Your task to perform on an android device: Show the shopping cart on costco.com. Search for "razer nari" on costco.com, select the first entry, and add it to the cart. Image 0: 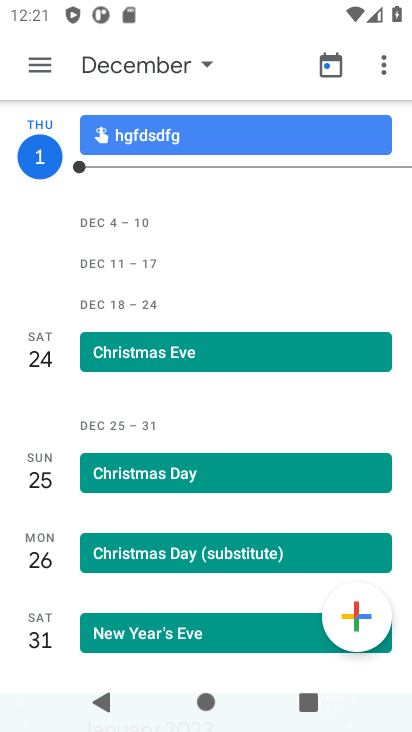
Step 0: press home button
Your task to perform on an android device: Show the shopping cart on costco.com. Search for "razer nari" on costco.com, select the first entry, and add it to the cart. Image 1: 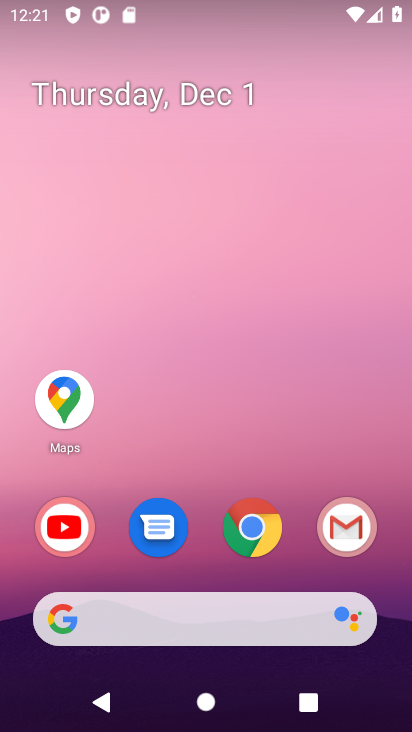
Step 1: click (260, 535)
Your task to perform on an android device: Show the shopping cart on costco.com. Search for "razer nari" on costco.com, select the first entry, and add it to the cart. Image 2: 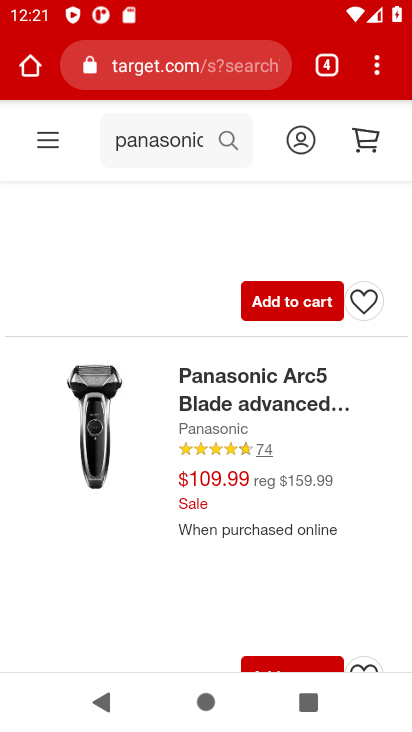
Step 2: click (152, 74)
Your task to perform on an android device: Show the shopping cart on costco.com. Search for "razer nari" on costco.com, select the first entry, and add it to the cart. Image 3: 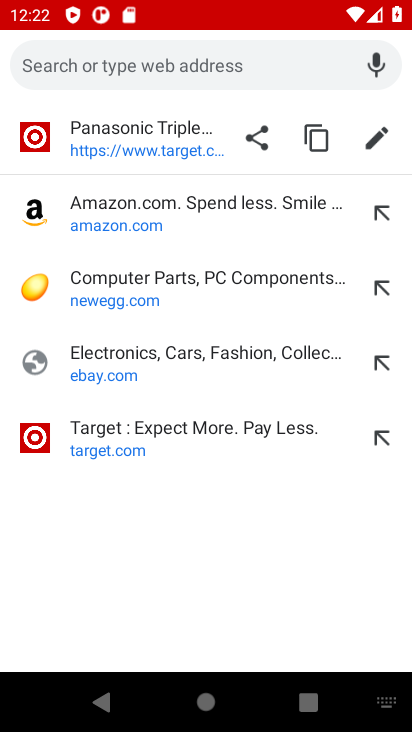
Step 3: type "costco.com"
Your task to perform on an android device: Show the shopping cart on costco.com. Search for "razer nari" on costco.com, select the first entry, and add it to the cart. Image 4: 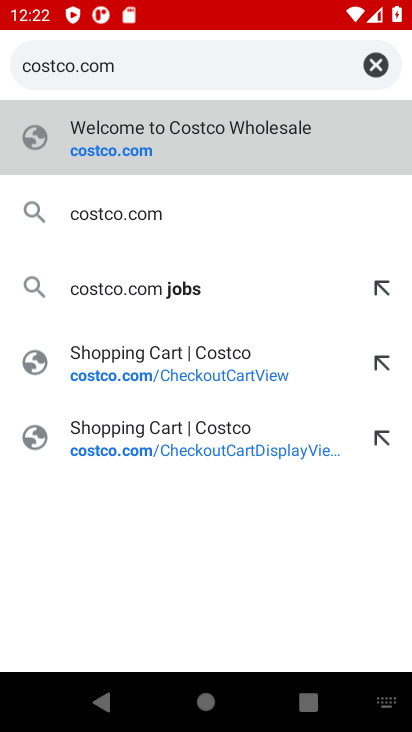
Step 4: click (84, 149)
Your task to perform on an android device: Show the shopping cart on costco.com. Search for "razer nari" on costco.com, select the first entry, and add it to the cart. Image 5: 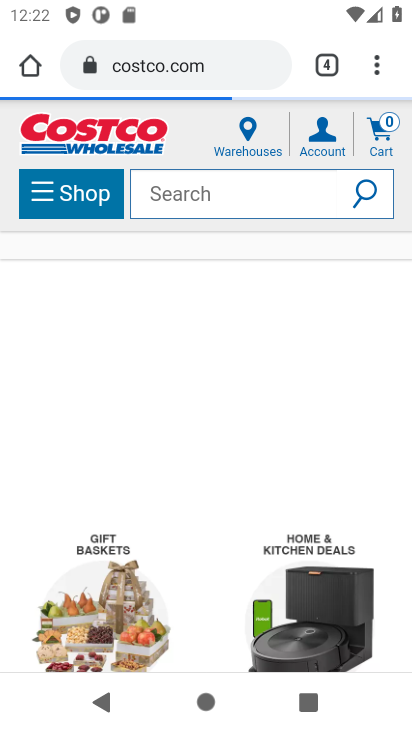
Step 5: click (388, 130)
Your task to perform on an android device: Show the shopping cart on costco.com. Search for "razer nari" on costco.com, select the first entry, and add it to the cart. Image 6: 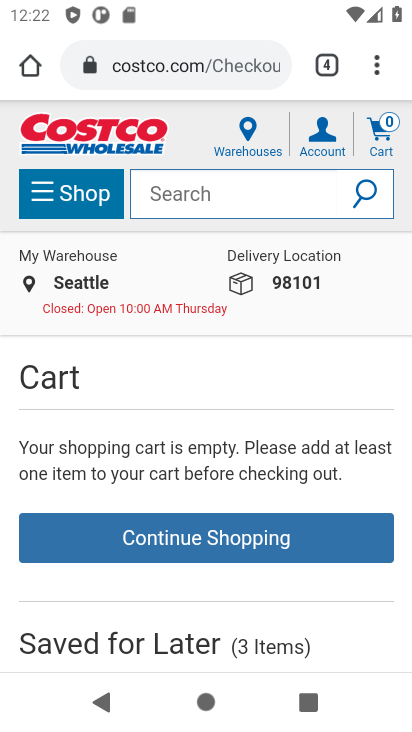
Step 6: click (198, 200)
Your task to perform on an android device: Show the shopping cart on costco.com. Search for "razer nari" on costco.com, select the first entry, and add it to the cart. Image 7: 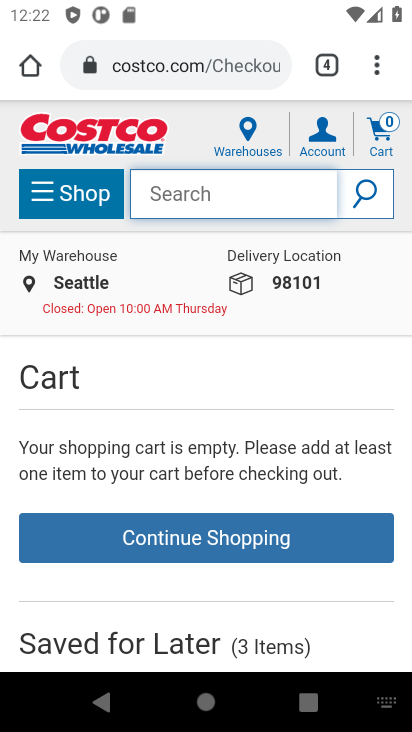
Step 7: type "razer nari"
Your task to perform on an android device: Show the shopping cart on costco.com. Search for "razer nari" on costco.com, select the first entry, and add it to the cart. Image 8: 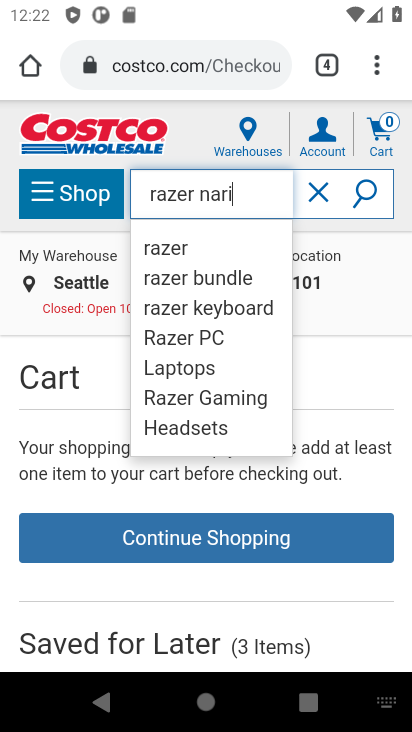
Step 8: click (365, 197)
Your task to perform on an android device: Show the shopping cart on costco.com. Search for "razer nari" on costco.com, select the first entry, and add it to the cart. Image 9: 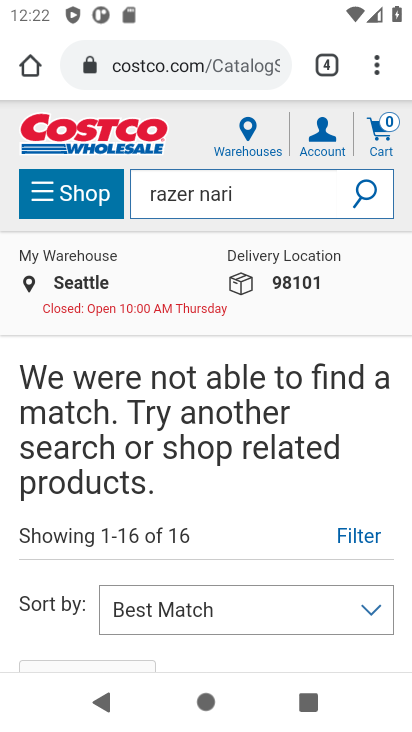
Step 9: task complete